Your task to perform on an android device: turn off sleep mode Image 0: 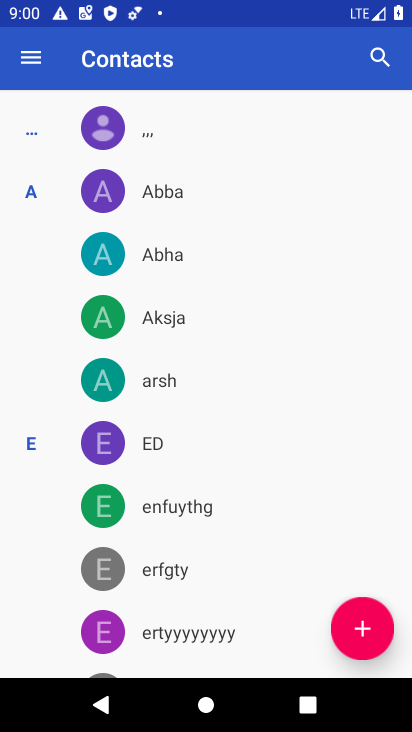
Step 0: press home button
Your task to perform on an android device: turn off sleep mode Image 1: 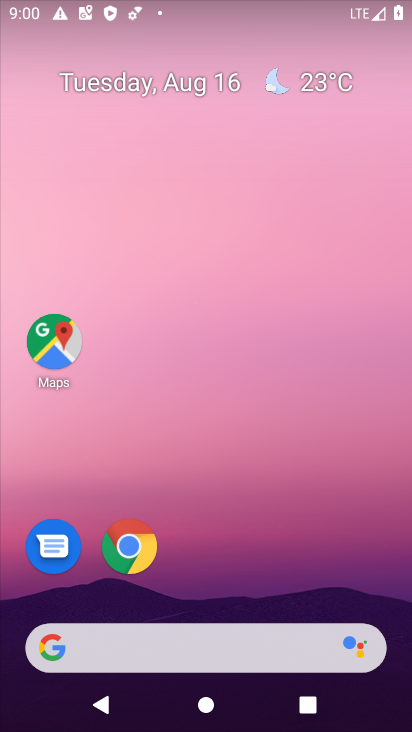
Step 1: drag from (236, 433) to (273, 13)
Your task to perform on an android device: turn off sleep mode Image 2: 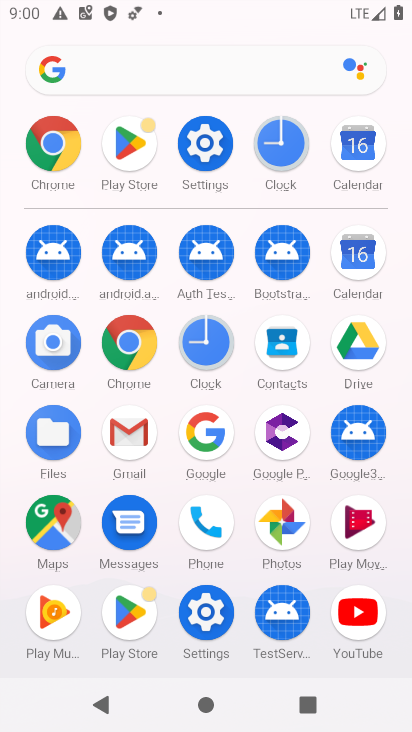
Step 2: click (202, 137)
Your task to perform on an android device: turn off sleep mode Image 3: 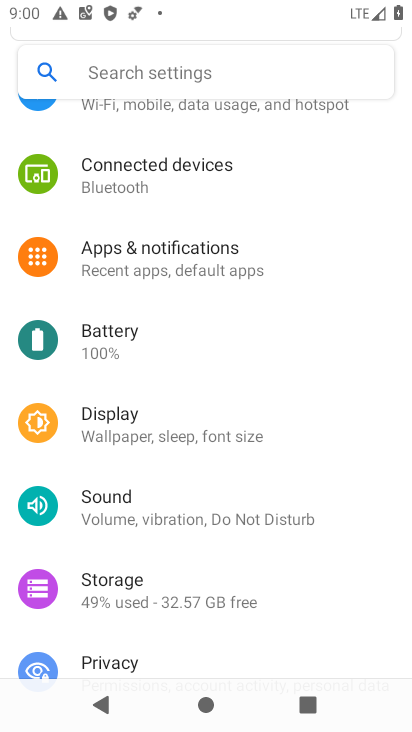
Step 3: click (180, 425)
Your task to perform on an android device: turn off sleep mode Image 4: 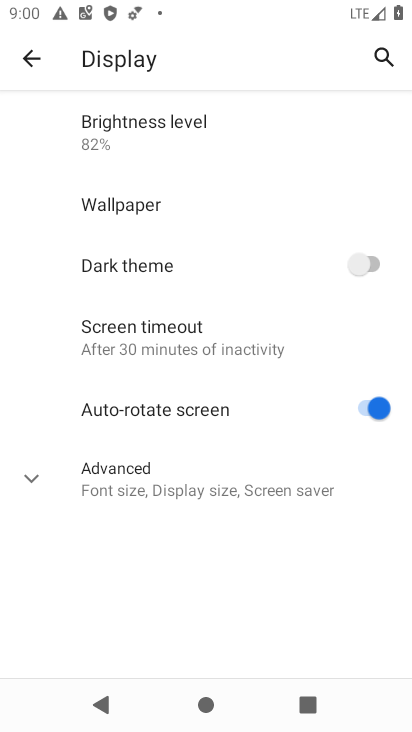
Step 4: click (27, 477)
Your task to perform on an android device: turn off sleep mode Image 5: 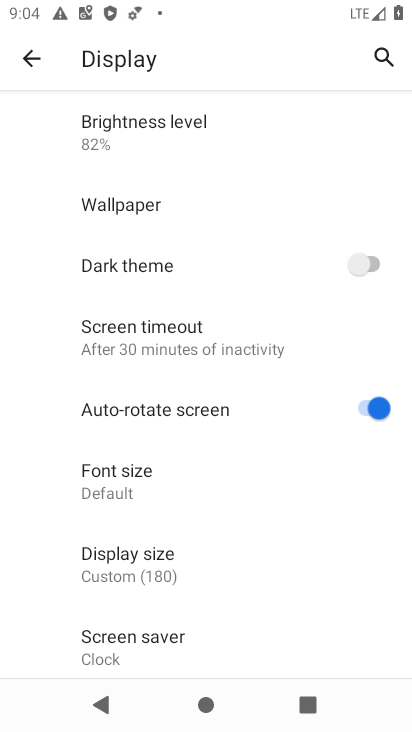
Step 5: task complete